Your task to perform on an android device: Go to Yahoo.com Image 0: 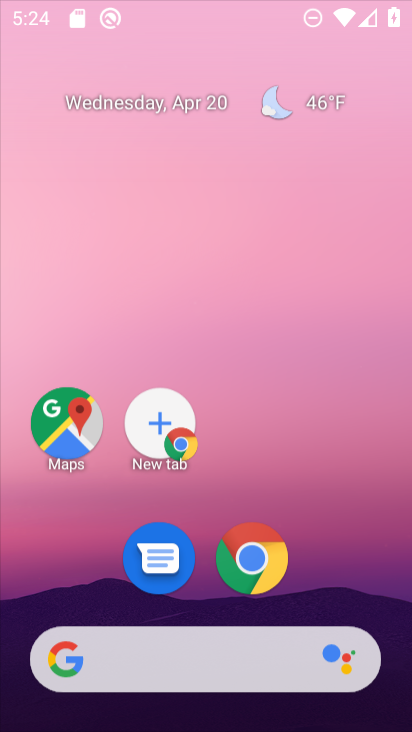
Step 0: drag from (321, 211) to (306, 4)
Your task to perform on an android device: Go to Yahoo.com Image 1: 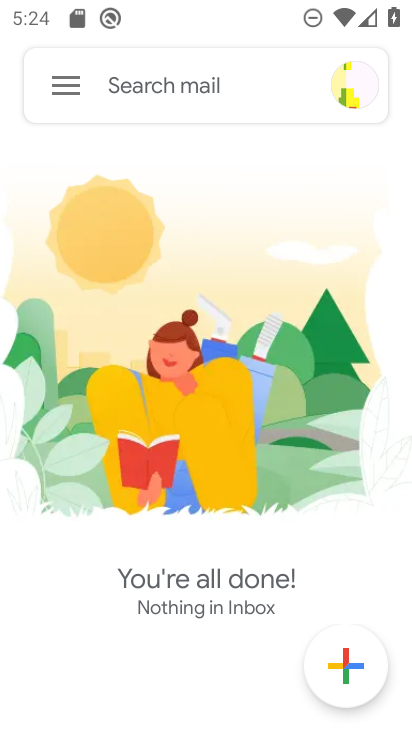
Step 1: press back button
Your task to perform on an android device: Go to Yahoo.com Image 2: 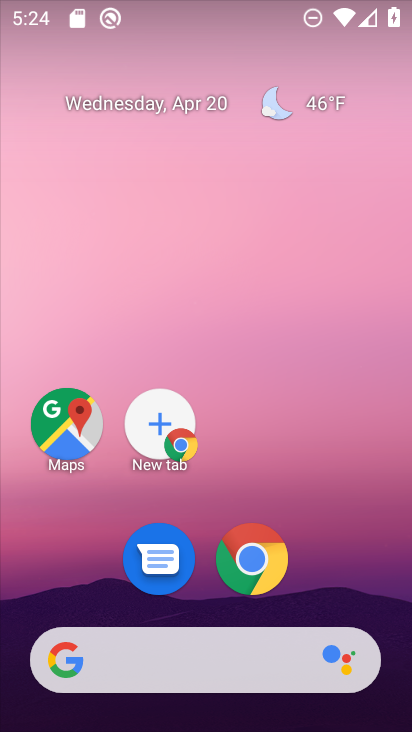
Step 2: click (266, 567)
Your task to perform on an android device: Go to Yahoo.com Image 3: 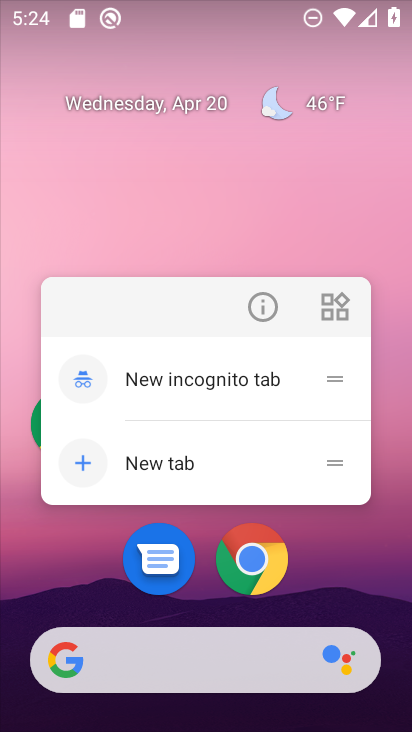
Step 3: click (266, 567)
Your task to perform on an android device: Go to Yahoo.com Image 4: 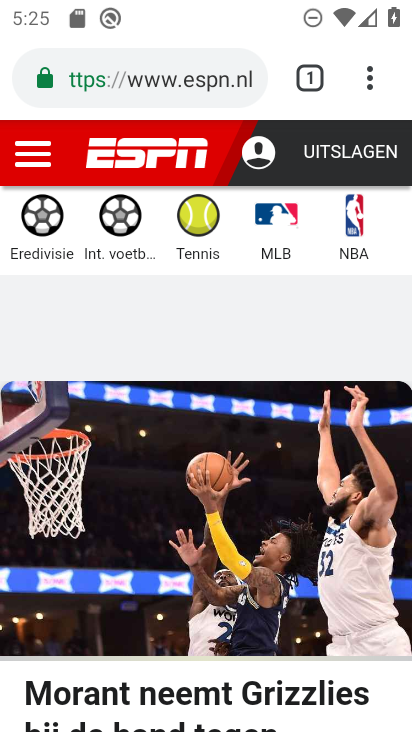
Step 4: click (192, 67)
Your task to perform on an android device: Go to Yahoo.com Image 5: 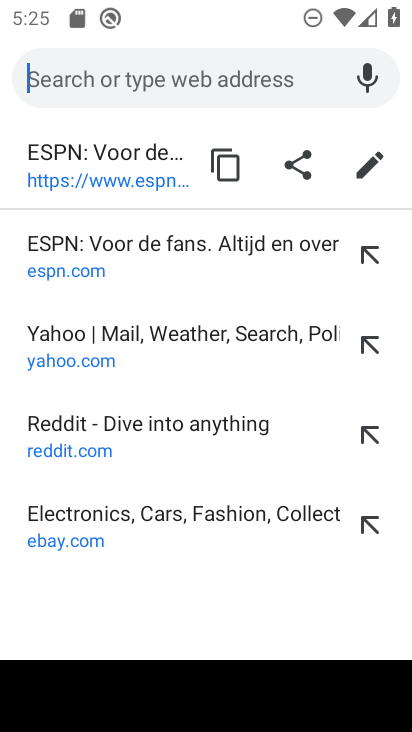
Step 5: type "yahoo.com"
Your task to perform on an android device: Go to Yahoo.com Image 6: 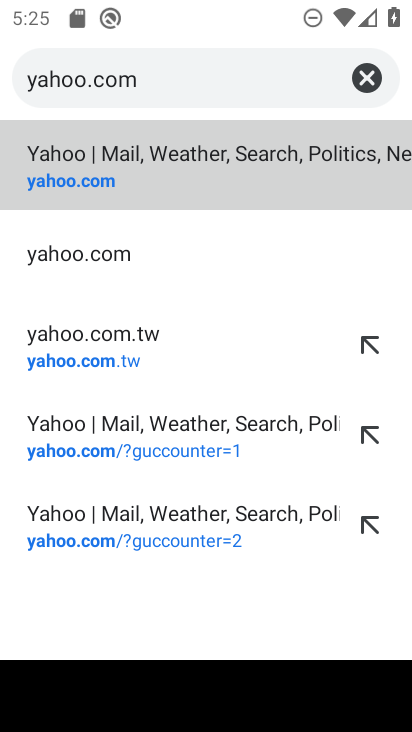
Step 6: click (164, 161)
Your task to perform on an android device: Go to Yahoo.com Image 7: 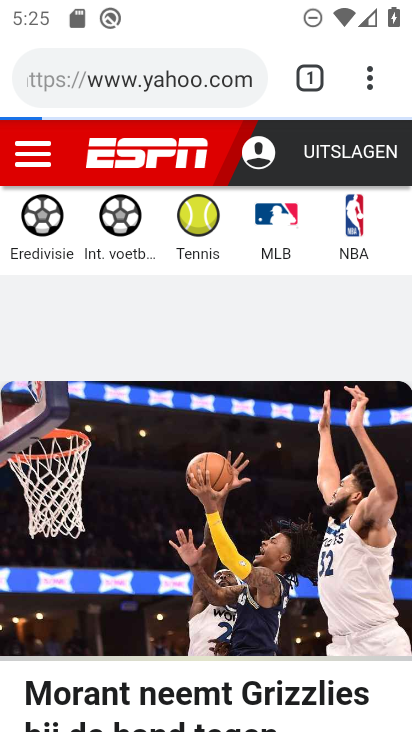
Step 7: task complete